Your task to perform on an android device: Open Google Image 0: 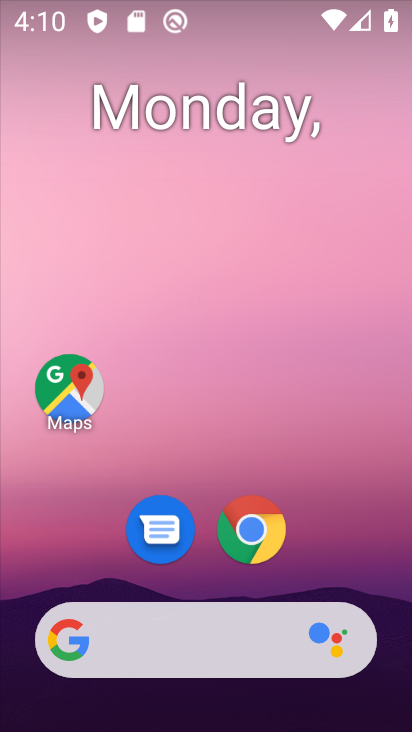
Step 0: click (174, 669)
Your task to perform on an android device: Open Google Image 1: 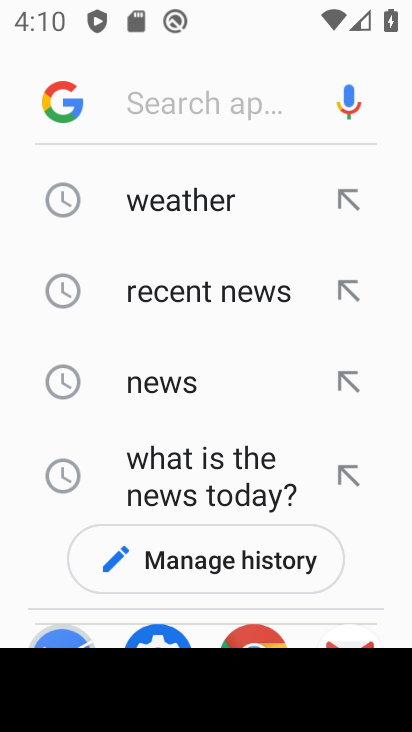
Step 1: click (57, 97)
Your task to perform on an android device: Open Google Image 2: 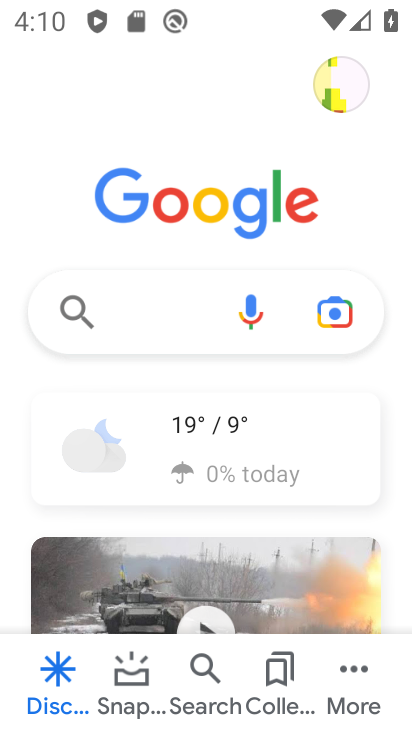
Step 2: task complete